Your task to perform on an android device: check data usage Image 0: 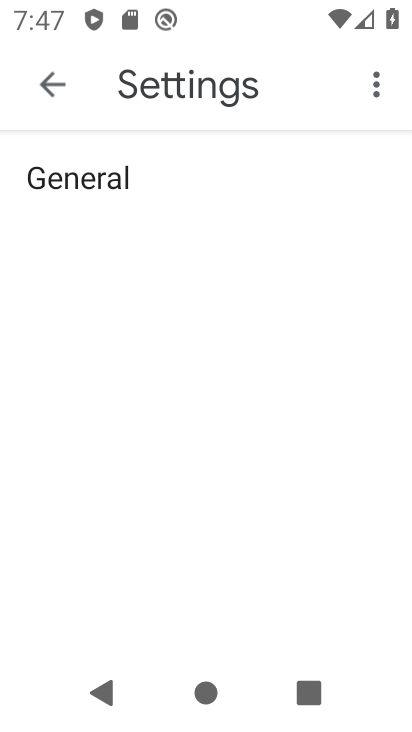
Step 0: press home button
Your task to perform on an android device: check data usage Image 1: 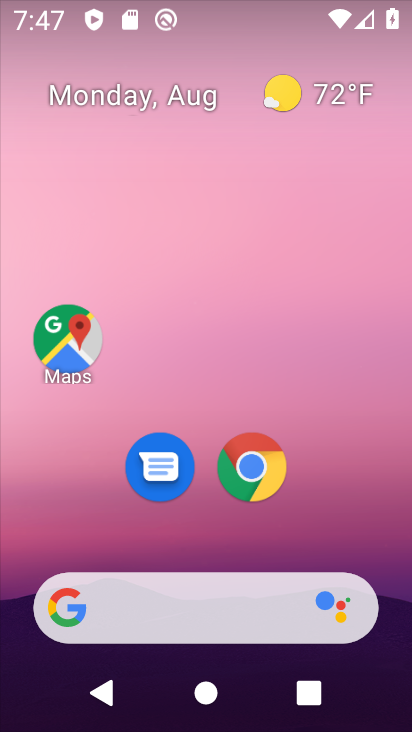
Step 1: drag from (351, 526) to (358, 108)
Your task to perform on an android device: check data usage Image 2: 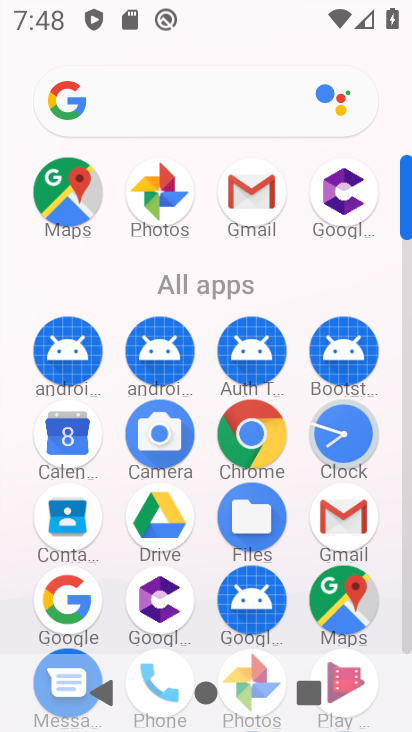
Step 2: drag from (389, 483) to (401, 242)
Your task to perform on an android device: check data usage Image 3: 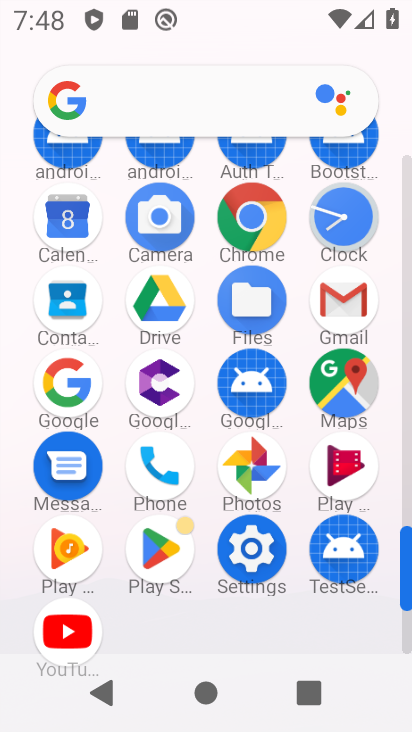
Step 3: click (245, 546)
Your task to perform on an android device: check data usage Image 4: 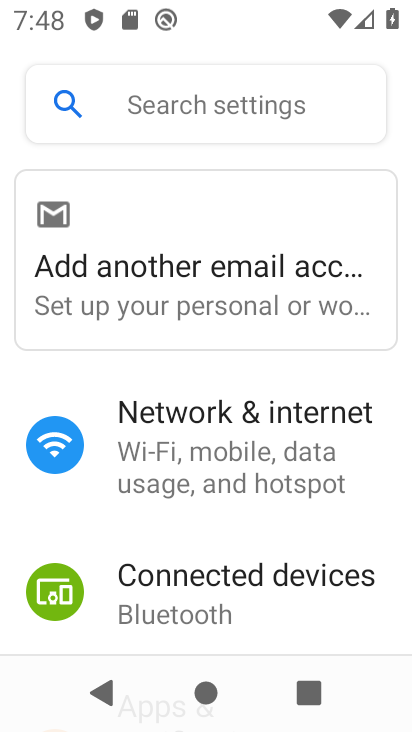
Step 4: click (315, 439)
Your task to perform on an android device: check data usage Image 5: 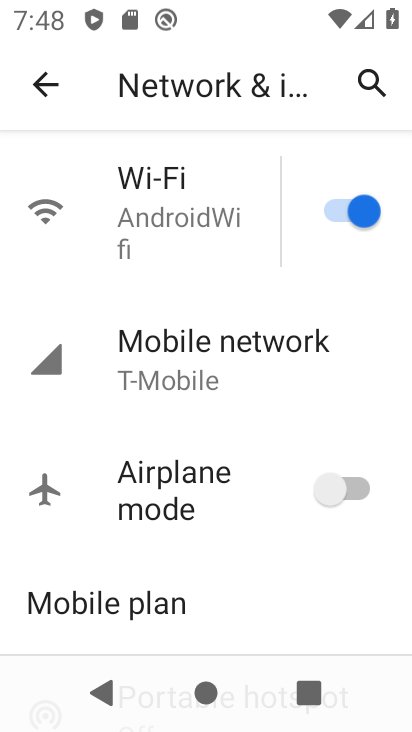
Step 5: click (211, 345)
Your task to perform on an android device: check data usage Image 6: 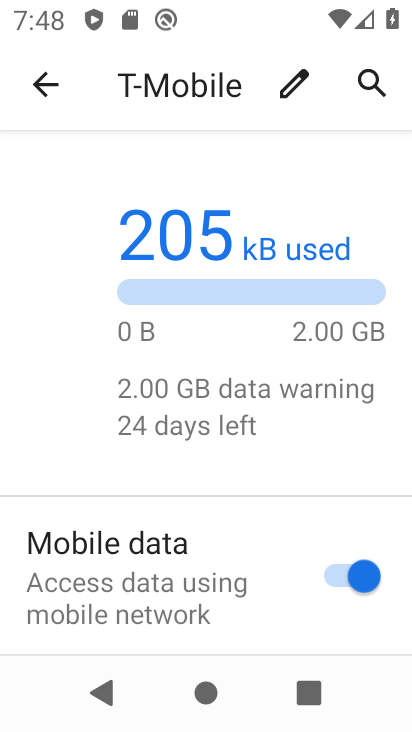
Step 6: drag from (232, 488) to (253, 387)
Your task to perform on an android device: check data usage Image 7: 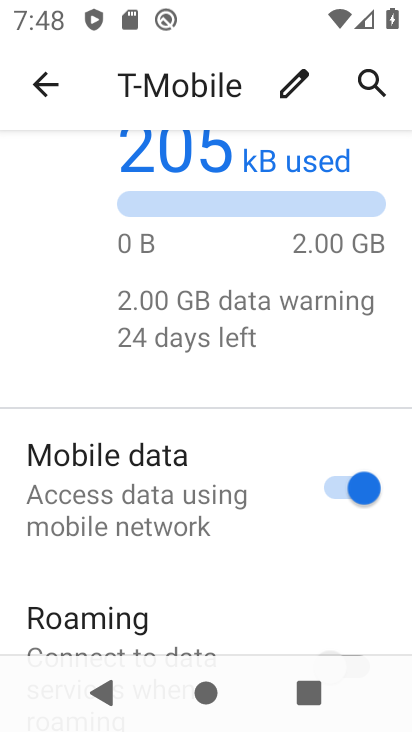
Step 7: drag from (254, 560) to (272, 422)
Your task to perform on an android device: check data usage Image 8: 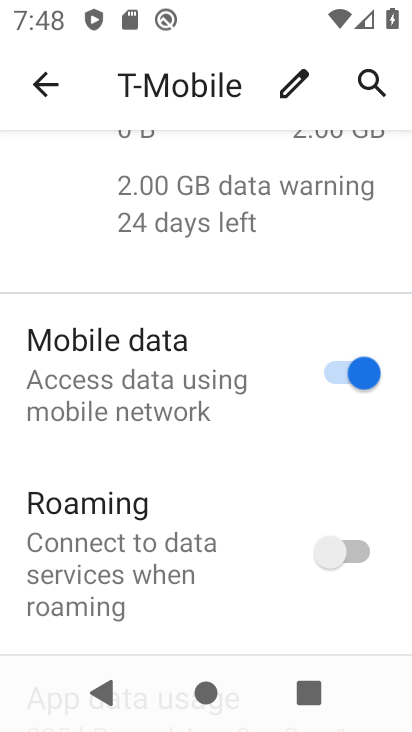
Step 8: drag from (252, 546) to (258, 408)
Your task to perform on an android device: check data usage Image 9: 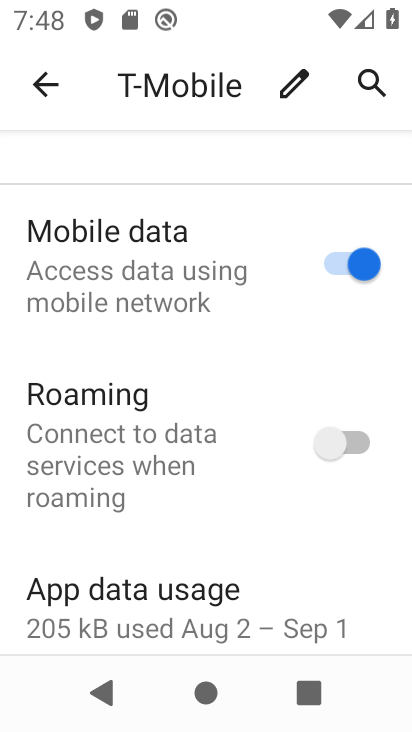
Step 9: drag from (242, 542) to (252, 386)
Your task to perform on an android device: check data usage Image 10: 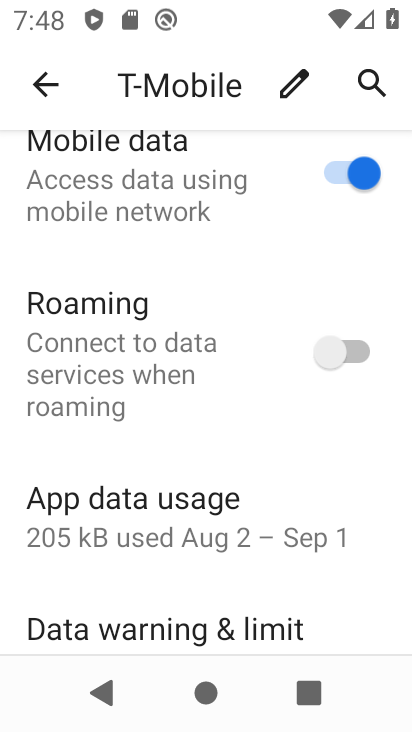
Step 10: click (233, 521)
Your task to perform on an android device: check data usage Image 11: 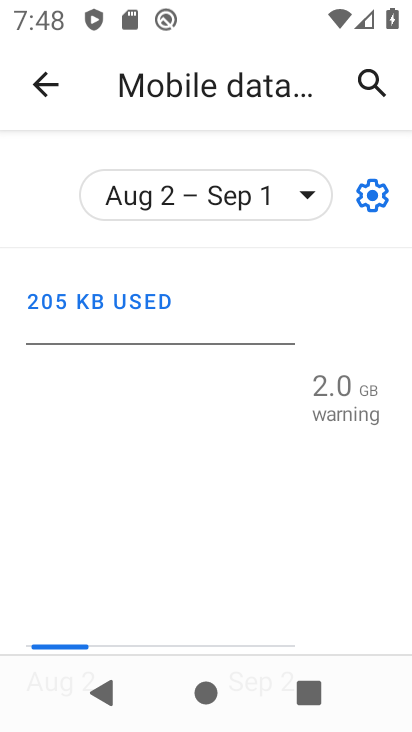
Step 11: task complete